Your task to perform on an android device: see sites visited before in the chrome app Image 0: 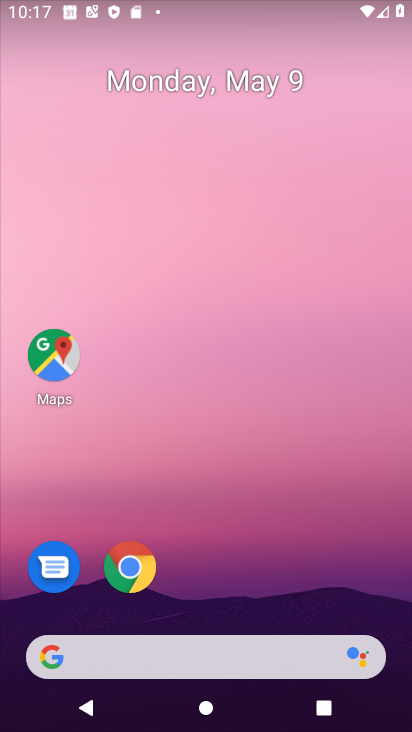
Step 0: click (146, 566)
Your task to perform on an android device: see sites visited before in the chrome app Image 1: 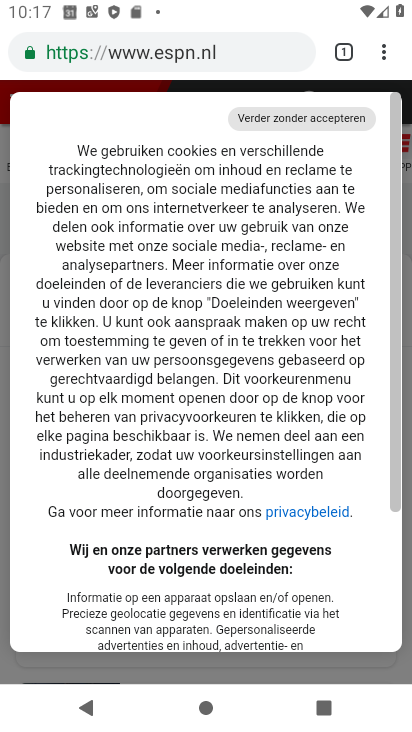
Step 1: click (385, 52)
Your task to perform on an android device: see sites visited before in the chrome app Image 2: 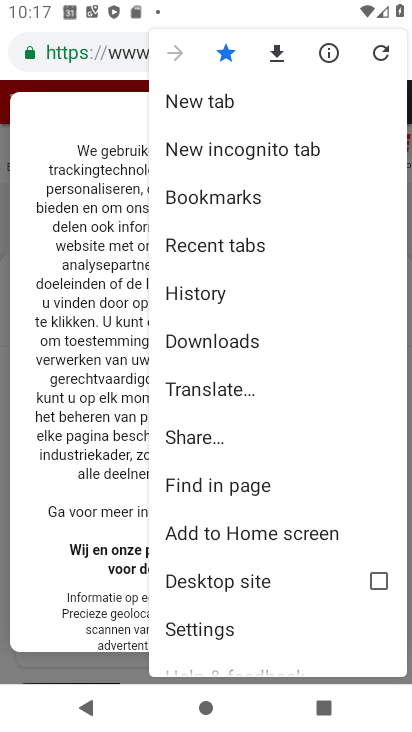
Step 2: click (207, 292)
Your task to perform on an android device: see sites visited before in the chrome app Image 3: 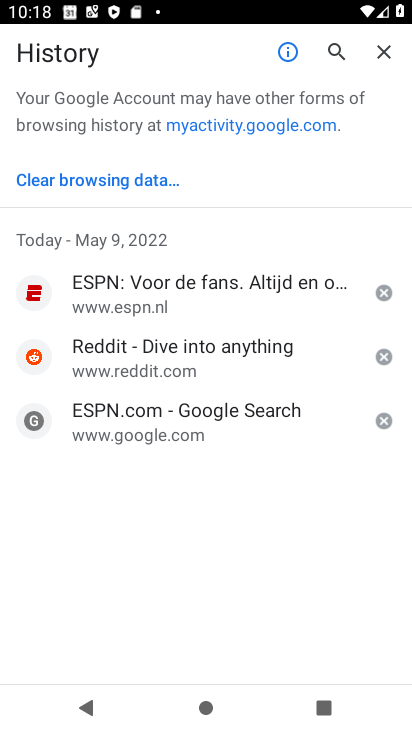
Step 3: task complete